Your task to perform on an android device: Show me recent news Image 0: 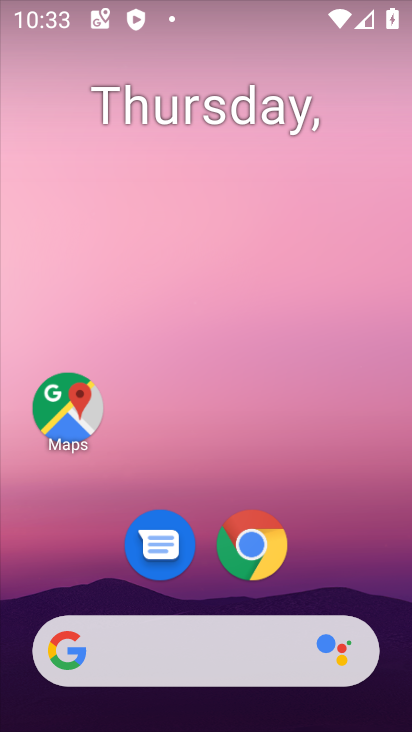
Step 0: drag from (323, 557) to (259, 204)
Your task to perform on an android device: Show me recent news Image 1: 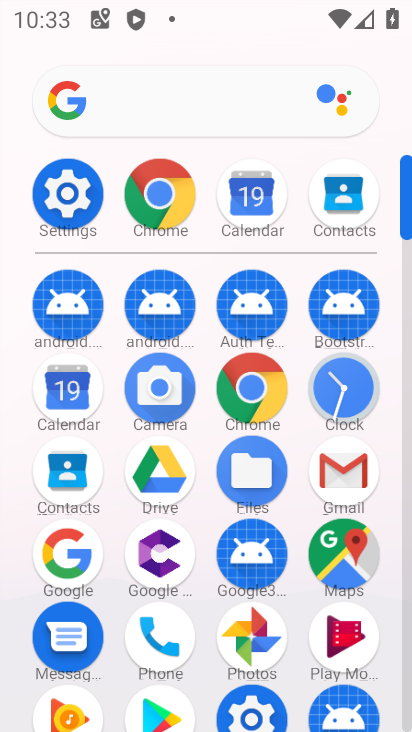
Step 1: click (62, 552)
Your task to perform on an android device: Show me recent news Image 2: 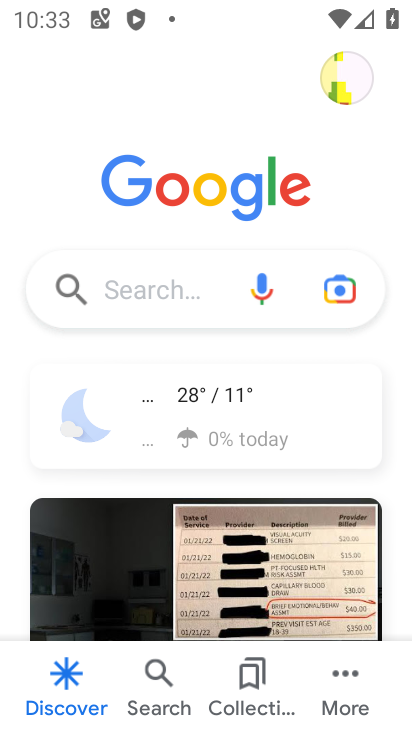
Step 2: click (162, 301)
Your task to perform on an android device: Show me recent news Image 3: 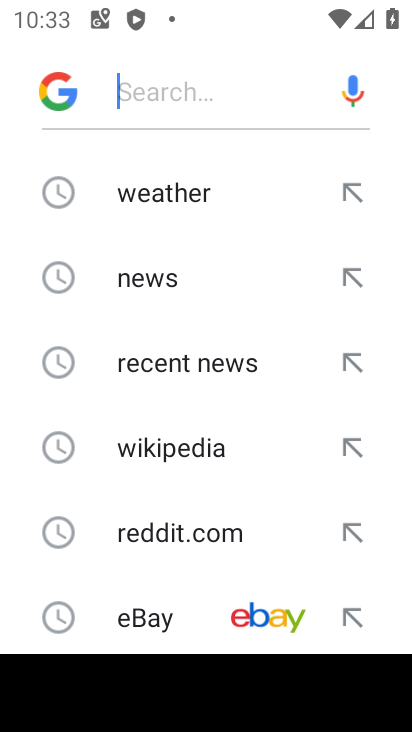
Step 3: click (163, 359)
Your task to perform on an android device: Show me recent news Image 4: 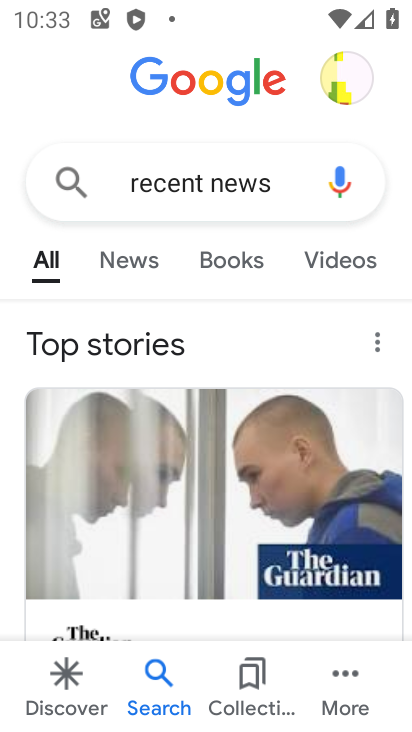
Step 4: task complete